Your task to perform on an android device: turn on the 24-hour format for clock Image 0: 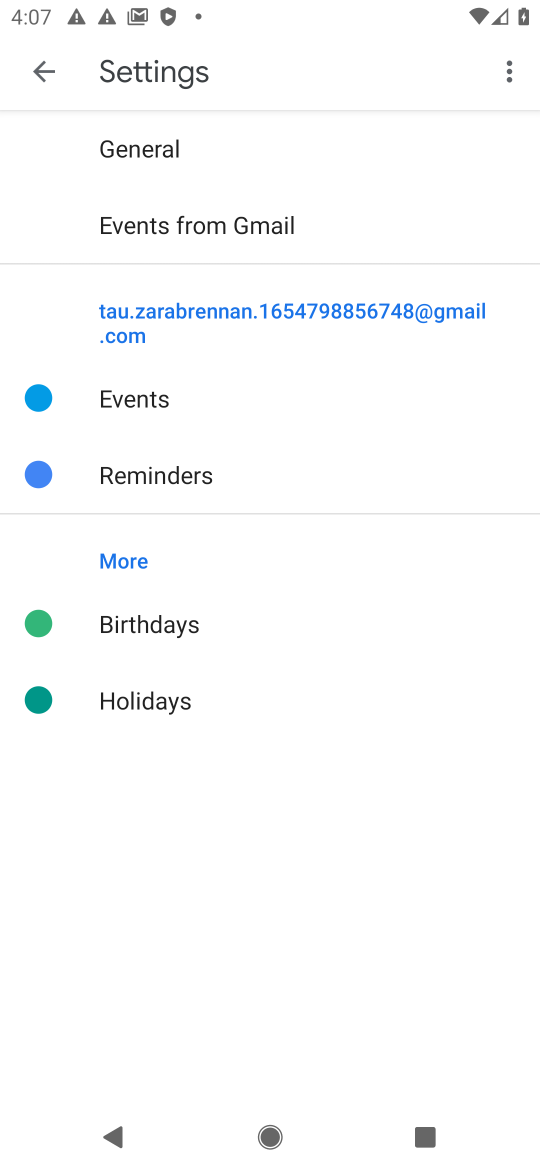
Step 0: press home button
Your task to perform on an android device: turn on the 24-hour format for clock Image 1: 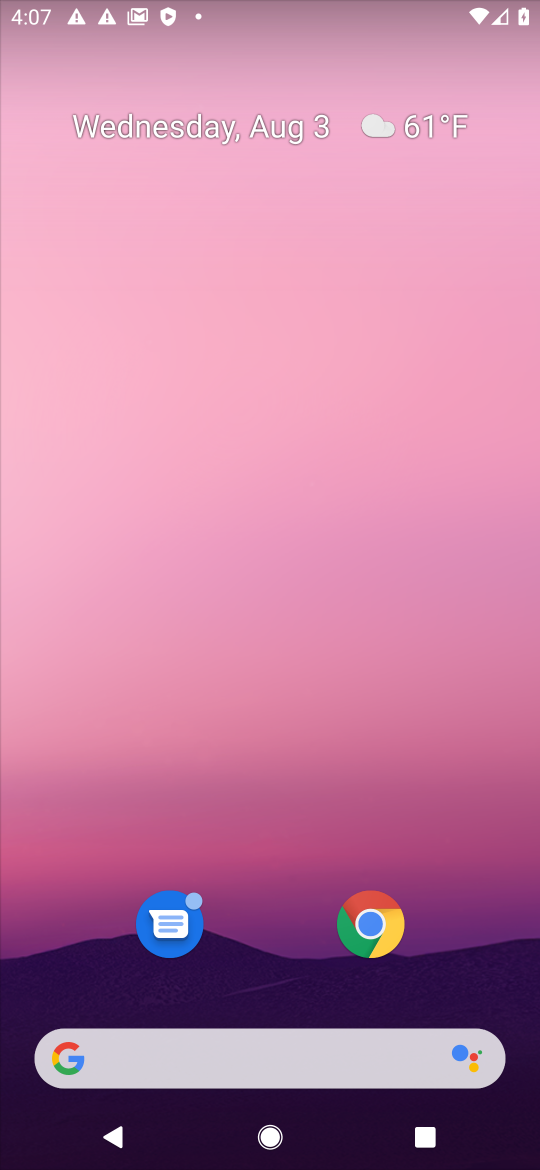
Step 1: drag from (280, 968) to (303, 195)
Your task to perform on an android device: turn on the 24-hour format for clock Image 2: 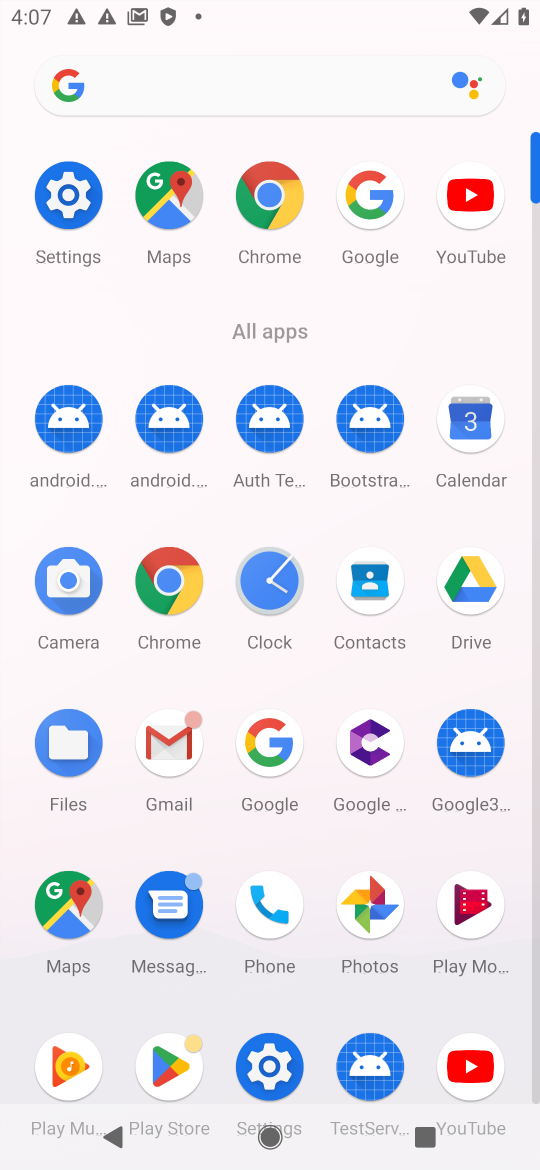
Step 2: click (263, 612)
Your task to perform on an android device: turn on the 24-hour format for clock Image 3: 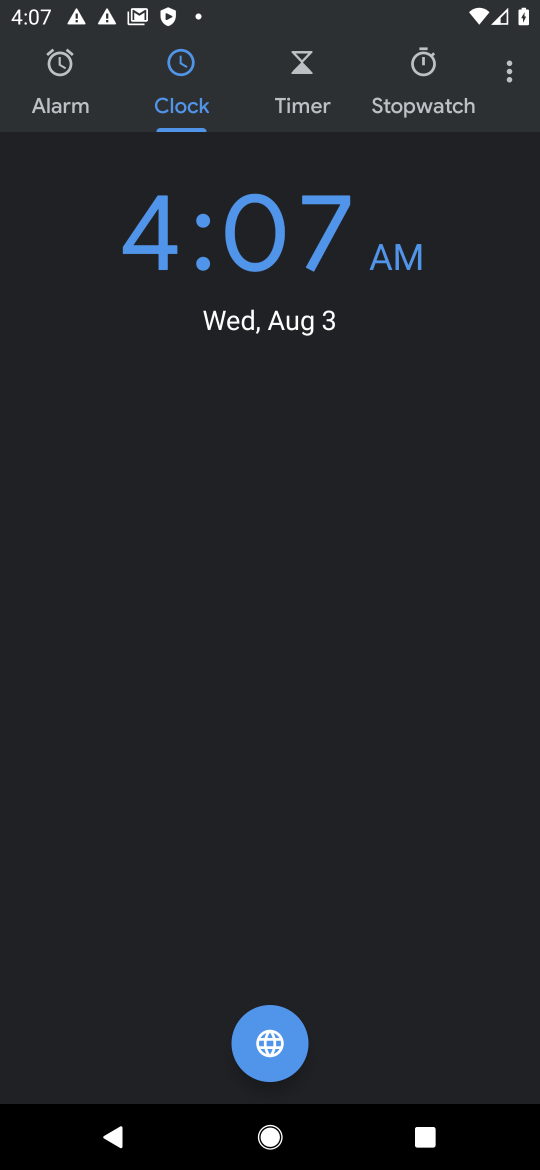
Step 3: click (504, 95)
Your task to perform on an android device: turn on the 24-hour format for clock Image 4: 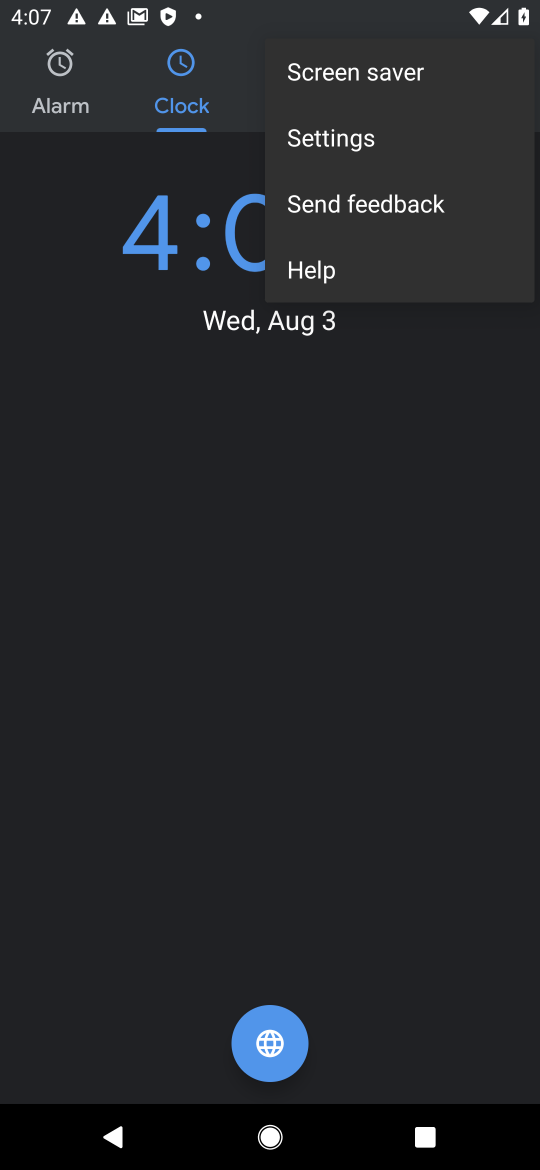
Step 4: click (310, 155)
Your task to perform on an android device: turn on the 24-hour format for clock Image 5: 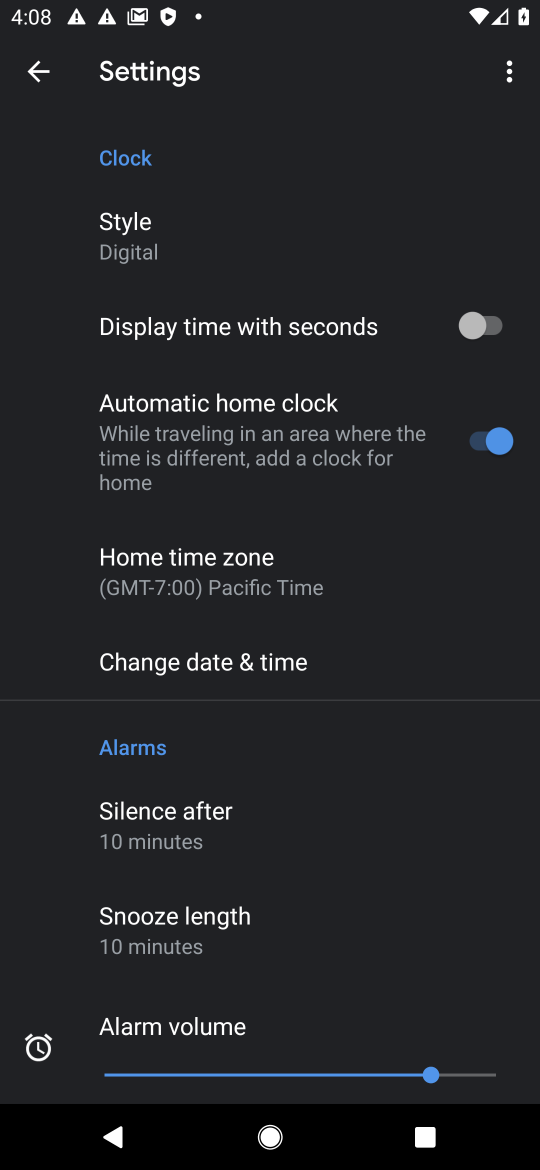
Step 5: click (274, 675)
Your task to perform on an android device: turn on the 24-hour format for clock Image 6: 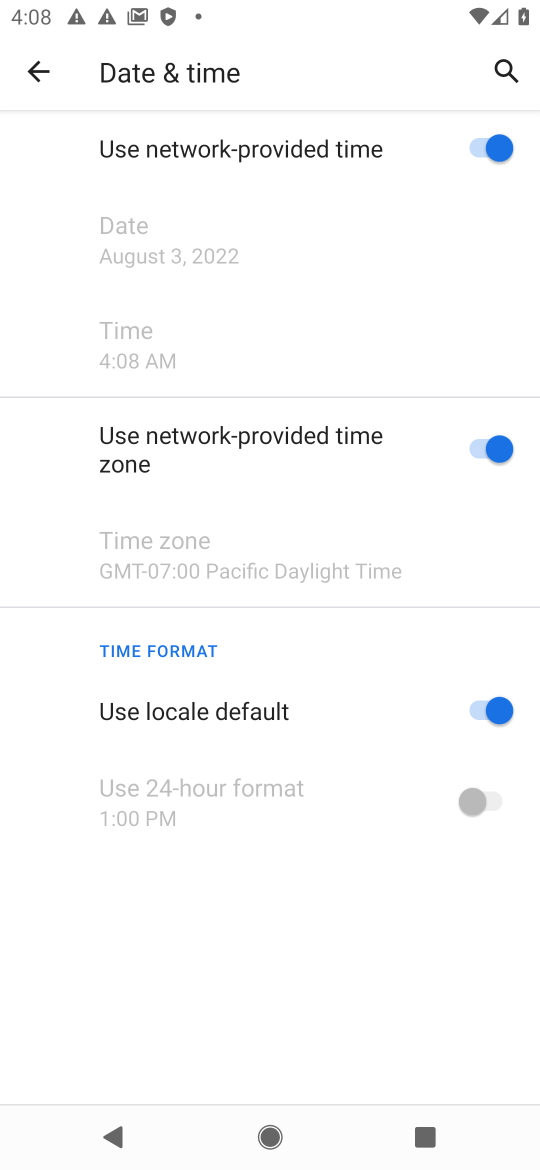
Step 6: click (482, 707)
Your task to perform on an android device: turn on the 24-hour format for clock Image 7: 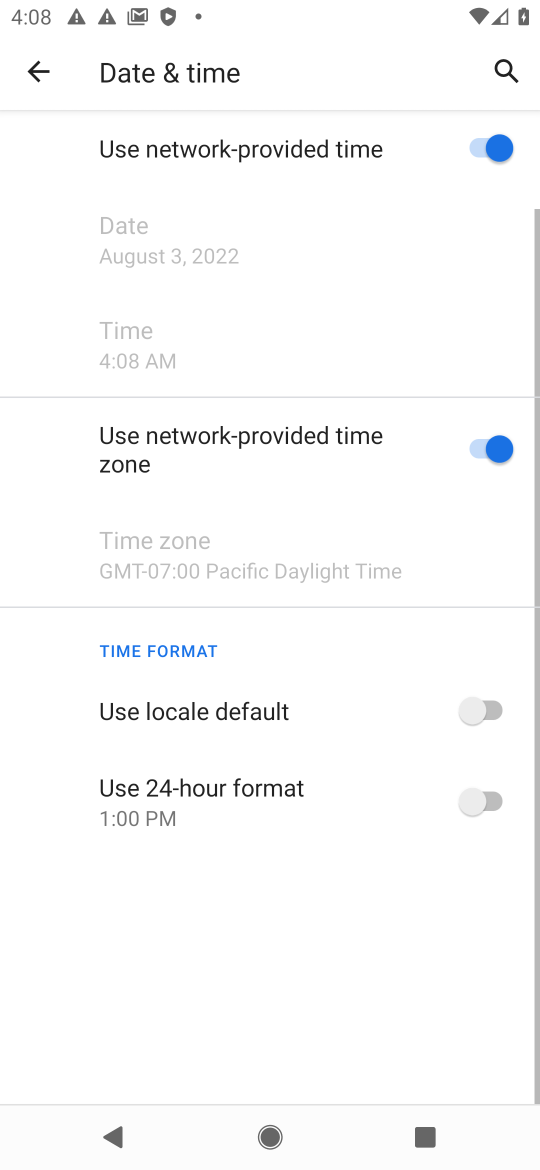
Step 7: click (491, 811)
Your task to perform on an android device: turn on the 24-hour format for clock Image 8: 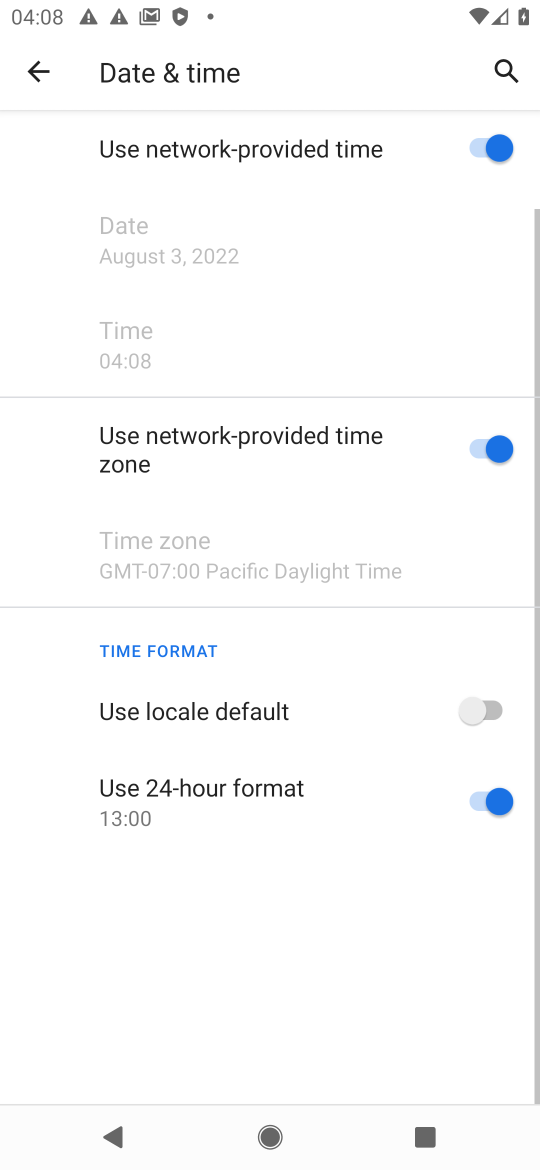
Step 8: task complete